Your task to perform on an android device: Open Chrome and go to the settings page Image 0: 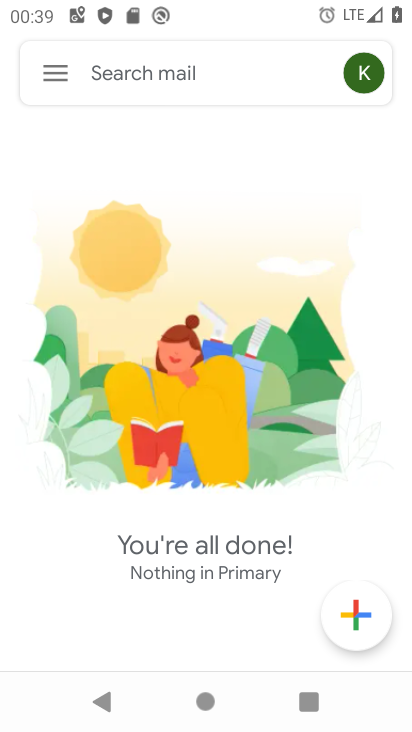
Step 0: press home button
Your task to perform on an android device: Open Chrome and go to the settings page Image 1: 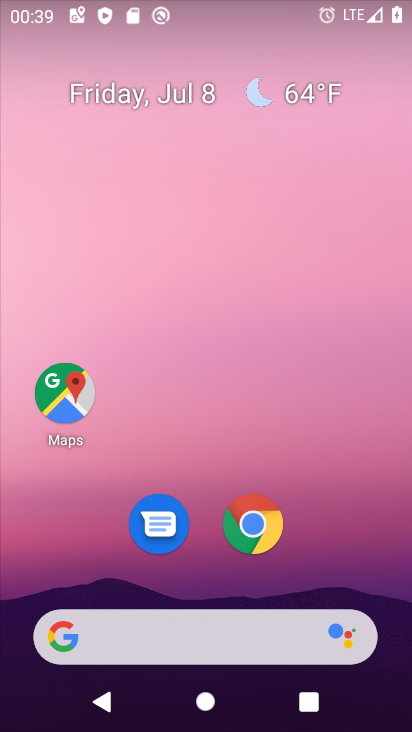
Step 1: click (251, 521)
Your task to perform on an android device: Open Chrome and go to the settings page Image 2: 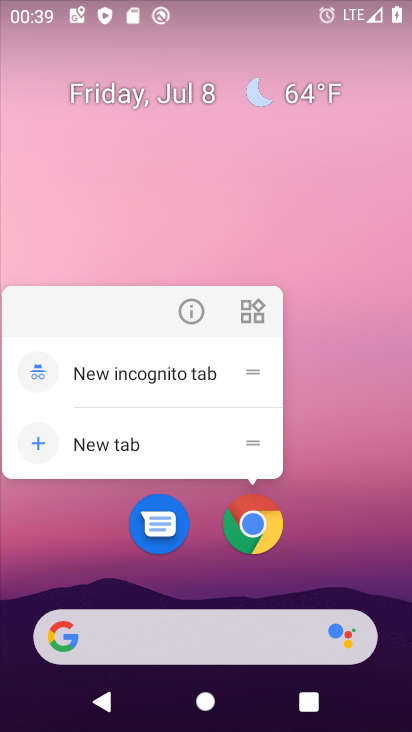
Step 2: click (251, 529)
Your task to perform on an android device: Open Chrome and go to the settings page Image 3: 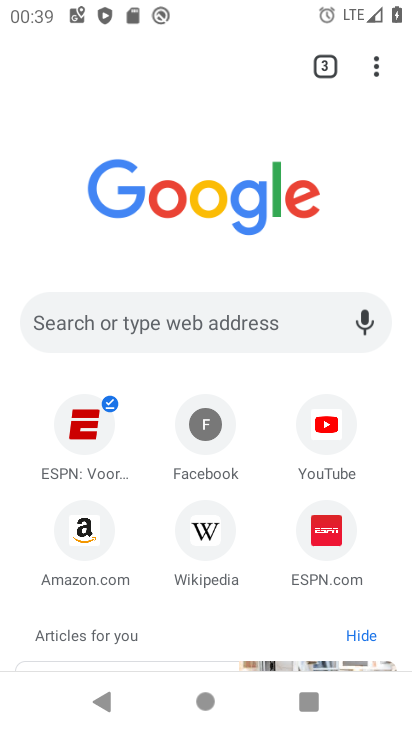
Step 3: click (376, 69)
Your task to perform on an android device: Open Chrome and go to the settings page Image 4: 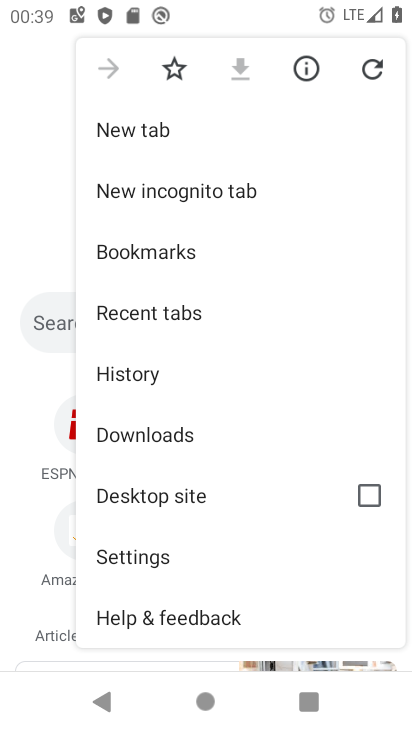
Step 4: click (150, 546)
Your task to perform on an android device: Open Chrome and go to the settings page Image 5: 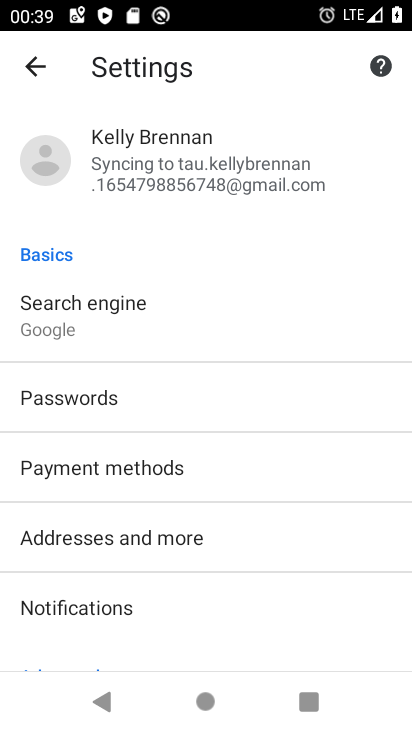
Step 5: task complete